Your task to perform on an android device: check out phone information Image 0: 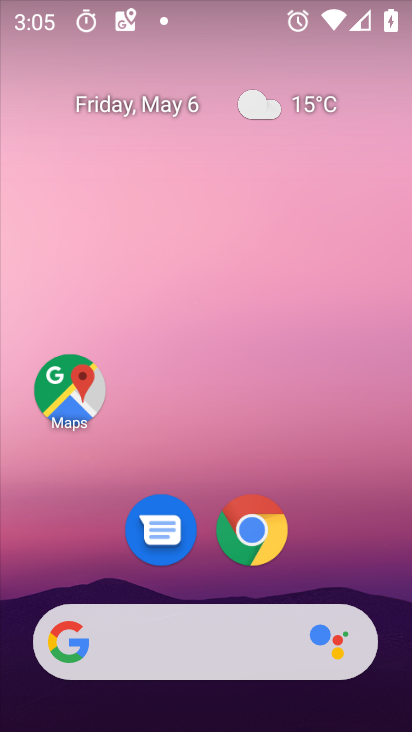
Step 0: drag from (379, 551) to (403, 2)
Your task to perform on an android device: check out phone information Image 1: 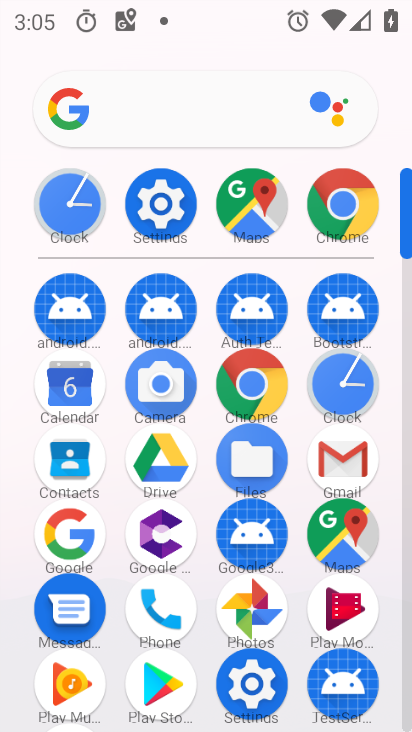
Step 1: click (144, 217)
Your task to perform on an android device: check out phone information Image 2: 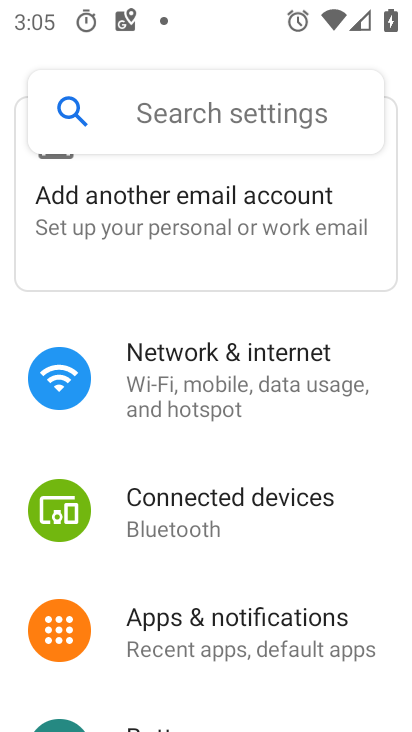
Step 2: drag from (260, 617) to (364, 187)
Your task to perform on an android device: check out phone information Image 3: 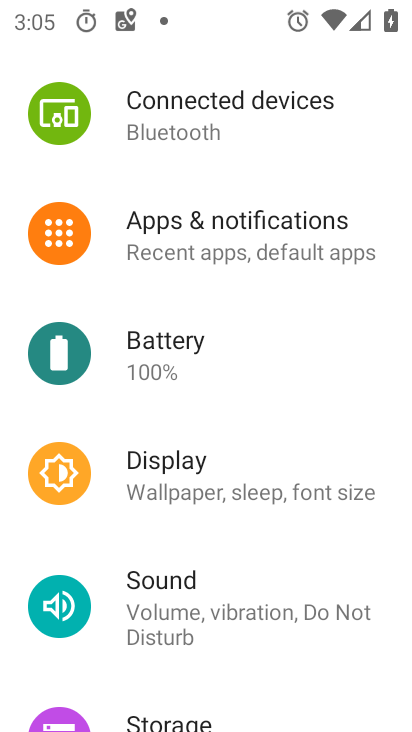
Step 3: drag from (196, 633) to (181, 199)
Your task to perform on an android device: check out phone information Image 4: 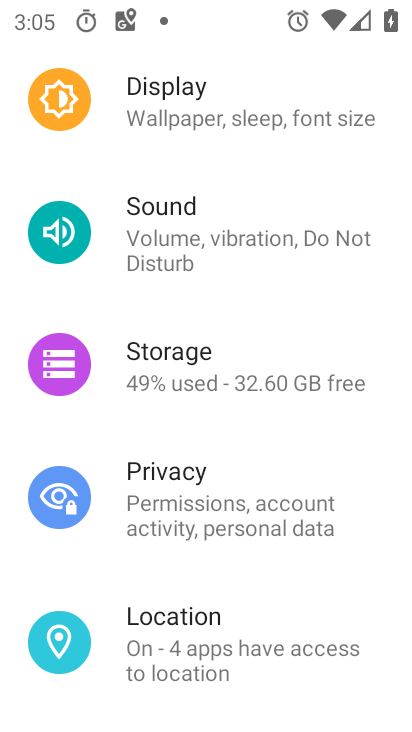
Step 4: drag from (277, 645) to (276, 118)
Your task to perform on an android device: check out phone information Image 5: 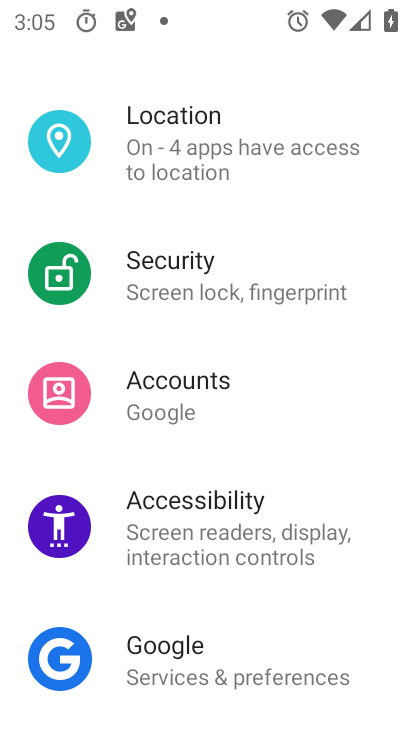
Step 5: drag from (225, 646) to (268, 184)
Your task to perform on an android device: check out phone information Image 6: 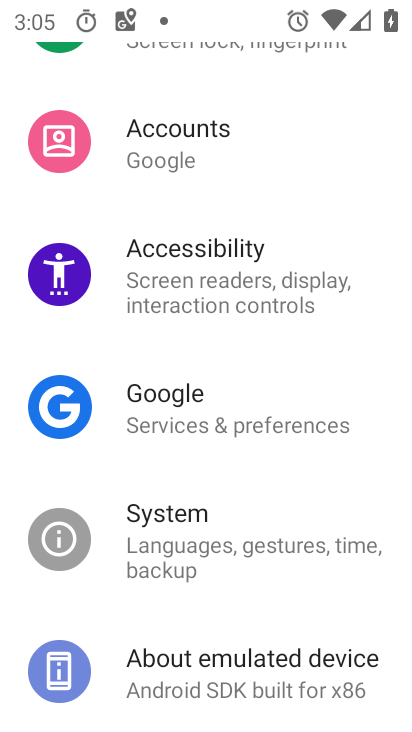
Step 6: drag from (187, 655) to (230, 164)
Your task to perform on an android device: check out phone information Image 7: 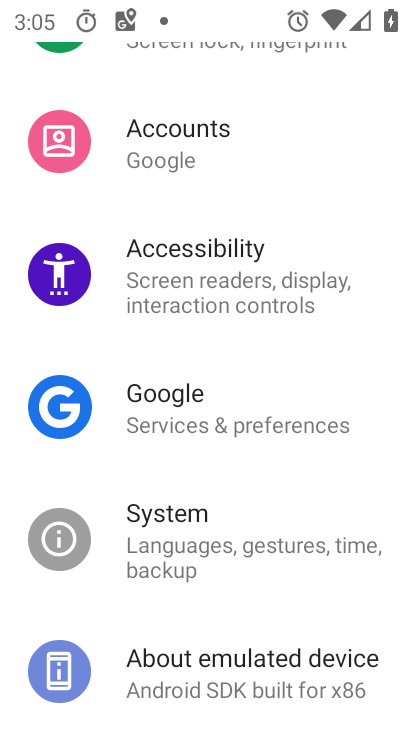
Step 7: drag from (253, 603) to (292, 195)
Your task to perform on an android device: check out phone information Image 8: 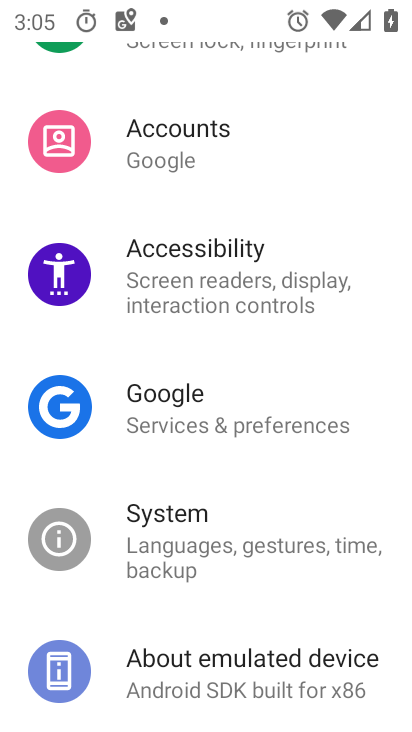
Step 8: click (213, 688)
Your task to perform on an android device: check out phone information Image 9: 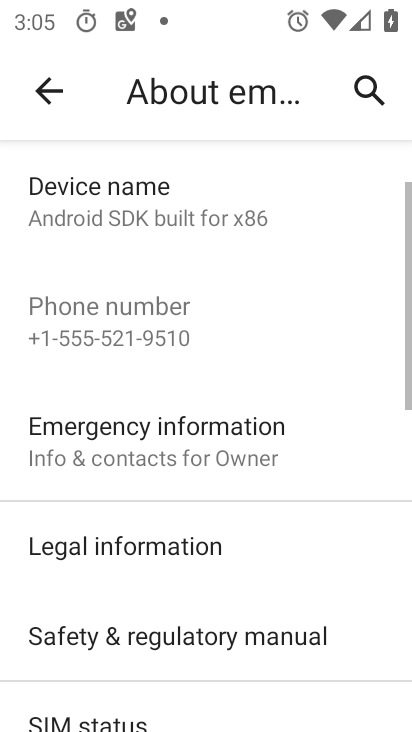
Step 9: task complete